Your task to perform on an android device: change notification settings in the gmail app Image 0: 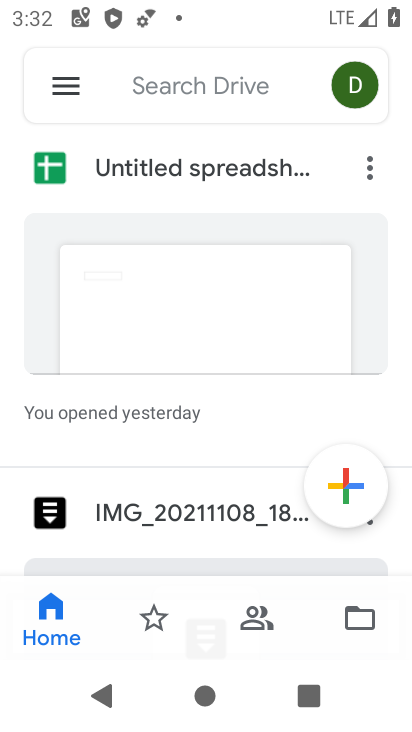
Step 0: press home button
Your task to perform on an android device: change notification settings in the gmail app Image 1: 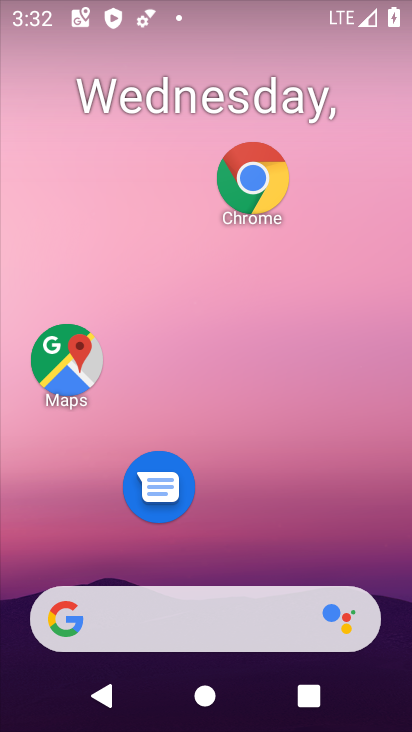
Step 1: drag from (299, 512) to (310, 37)
Your task to perform on an android device: change notification settings in the gmail app Image 2: 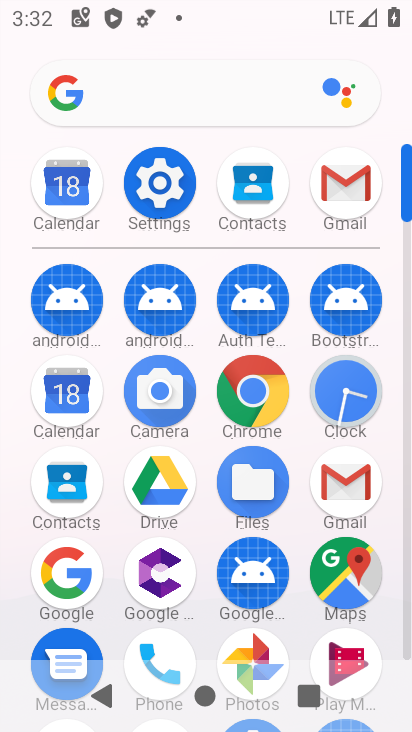
Step 2: click (332, 490)
Your task to perform on an android device: change notification settings in the gmail app Image 3: 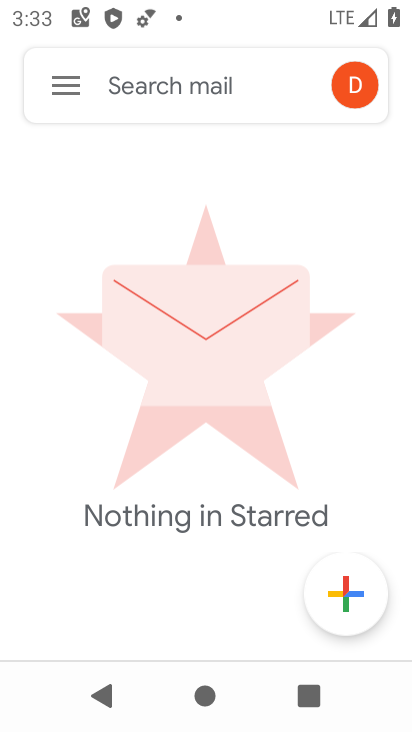
Step 3: click (57, 87)
Your task to perform on an android device: change notification settings in the gmail app Image 4: 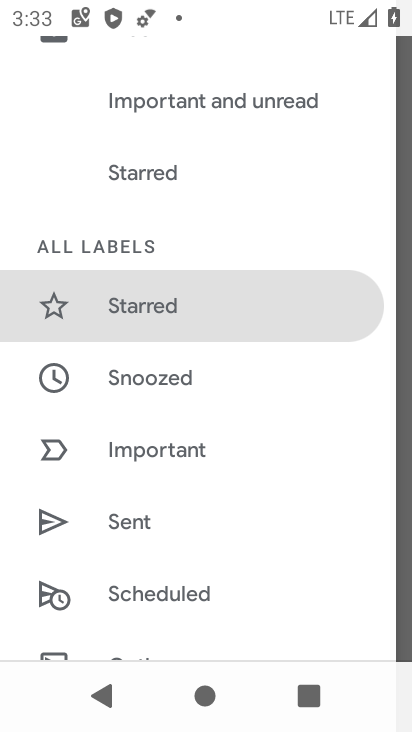
Step 4: drag from (128, 575) to (136, 310)
Your task to perform on an android device: change notification settings in the gmail app Image 5: 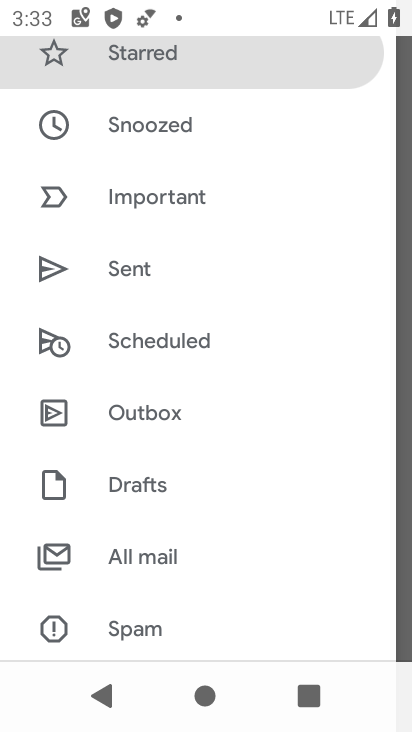
Step 5: drag from (129, 628) to (161, 339)
Your task to perform on an android device: change notification settings in the gmail app Image 6: 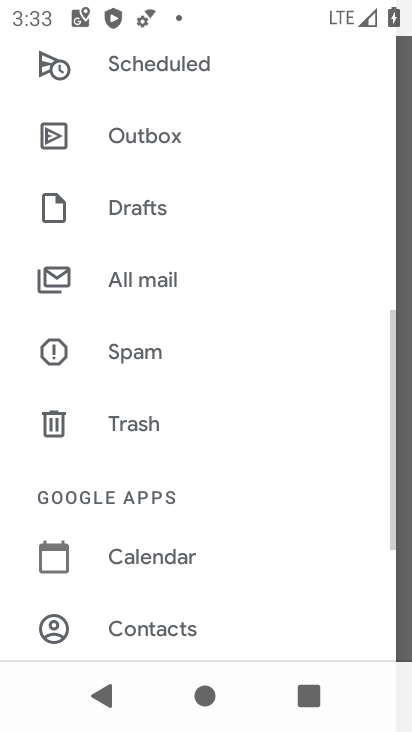
Step 6: drag from (130, 618) to (194, 358)
Your task to perform on an android device: change notification settings in the gmail app Image 7: 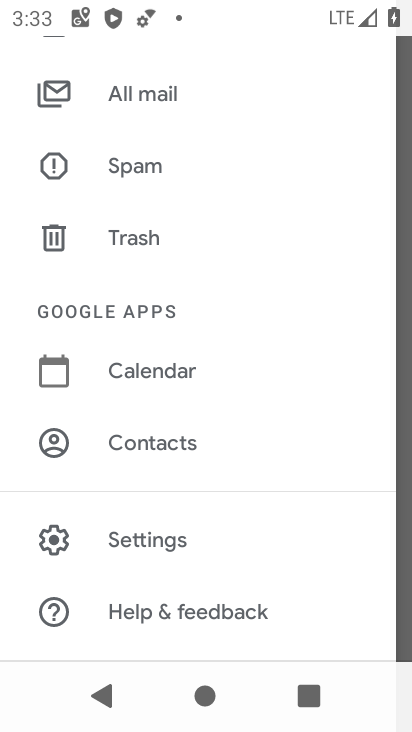
Step 7: click (179, 541)
Your task to perform on an android device: change notification settings in the gmail app Image 8: 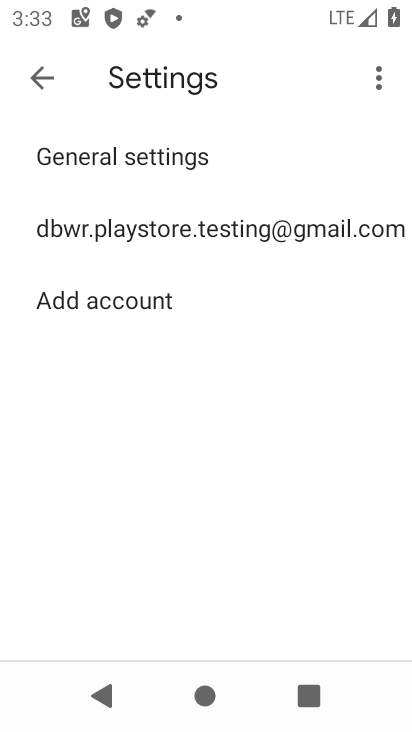
Step 8: click (182, 232)
Your task to perform on an android device: change notification settings in the gmail app Image 9: 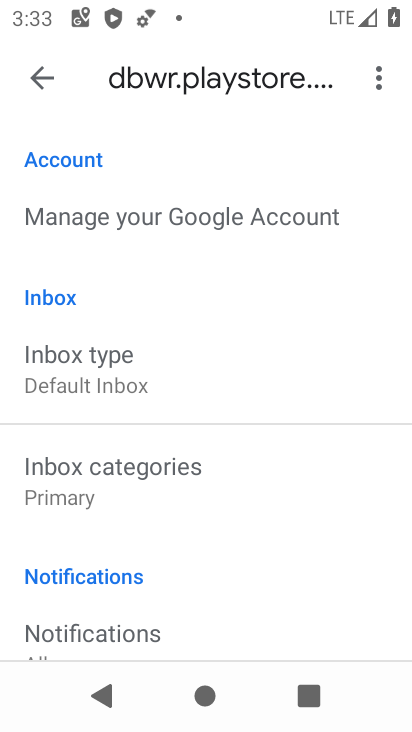
Step 9: drag from (131, 624) to (129, 114)
Your task to perform on an android device: change notification settings in the gmail app Image 10: 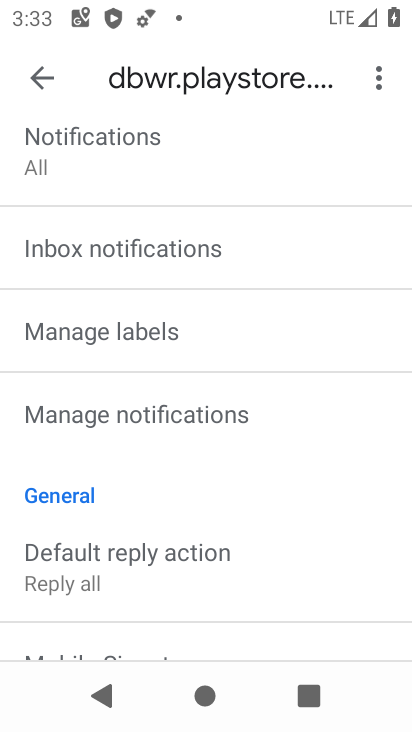
Step 10: click (94, 432)
Your task to perform on an android device: change notification settings in the gmail app Image 11: 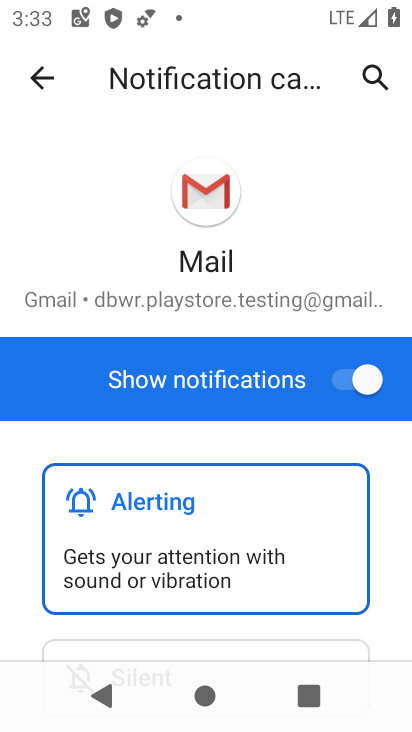
Step 11: click (357, 383)
Your task to perform on an android device: change notification settings in the gmail app Image 12: 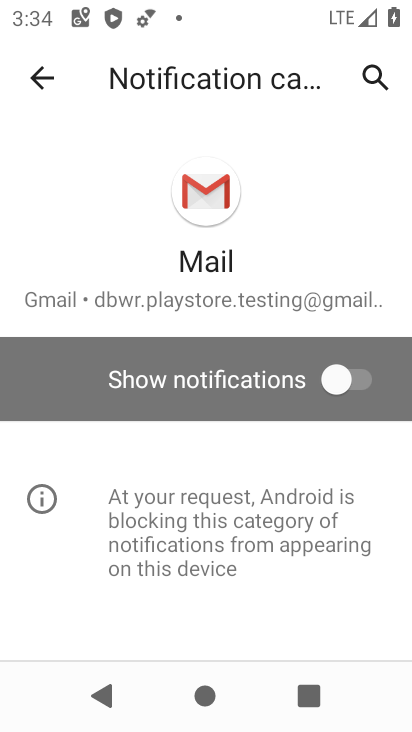
Step 12: task complete